Your task to perform on an android device: turn off data saver in the chrome app Image 0: 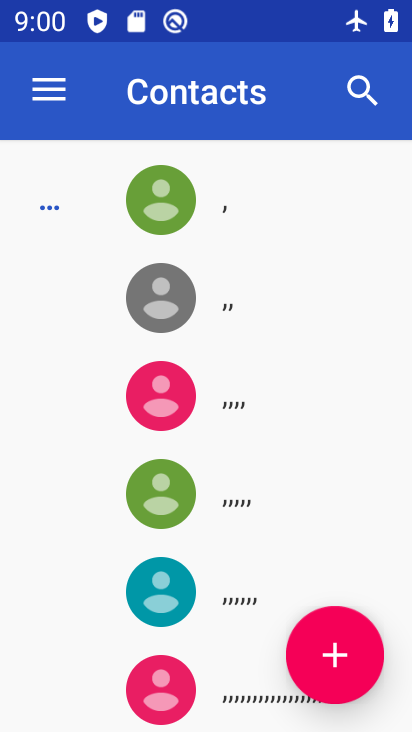
Step 0: press home button
Your task to perform on an android device: turn off data saver in the chrome app Image 1: 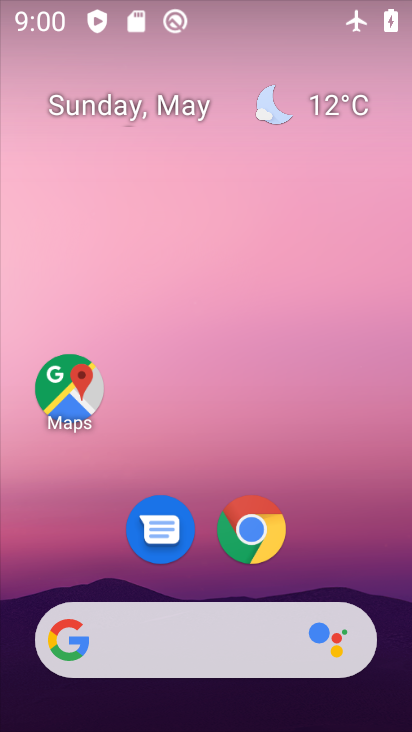
Step 1: click (250, 518)
Your task to perform on an android device: turn off data saver in the chrome app Image 2: 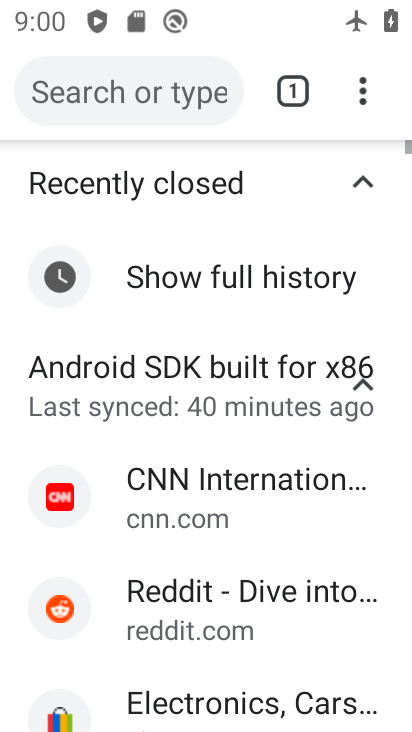
Step 2: click (347, 85)
Your task to perform on an android device: turn off data saver in the chrome app Image 3: 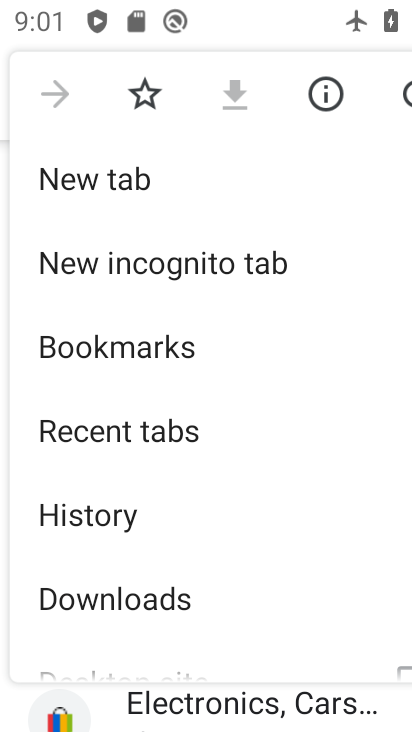
Step 3: drag from (217, 541) to (196, 116)
Your task to perform on an android device: turn off data saver in the chrome app Image 4: 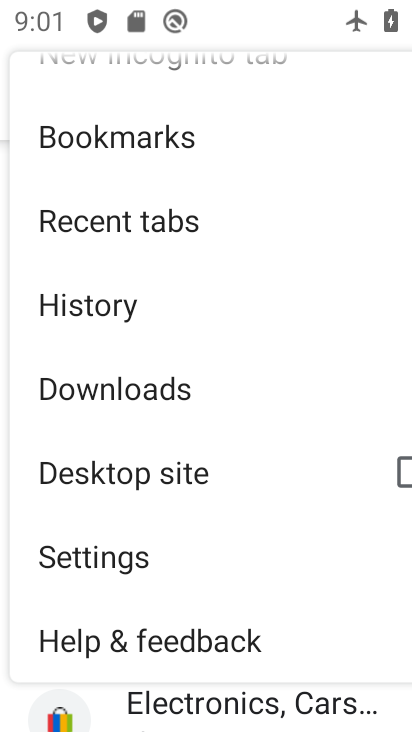
Step 4: click (161, 552)
Your task to perform on an android device: turn off data saver in the chrome app Image 5: 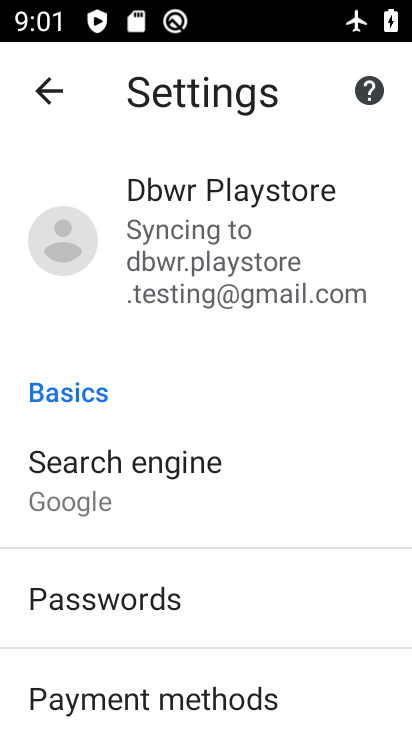
Step 5: drag from (197, 597) to (166, 140)
Your task to perform on an android device: turn off data saver in the chrome app Image 6: 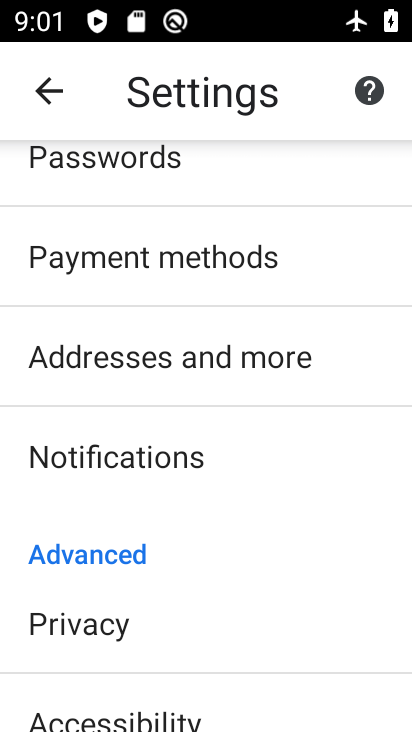
Step 6: drag from (153, 607) to (136, 347)
Your task to perform on an android device: turn off data saver in the chrome app Image 7: 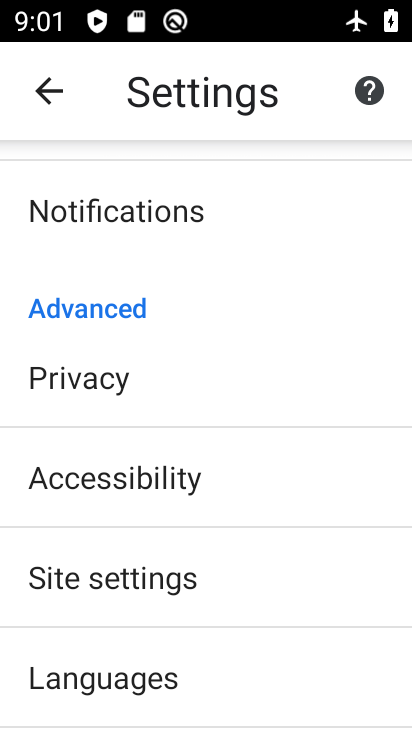
Step 7: drag from (172, 632) to (159, 283)
Your task to perform on an android device: turn off data saver in the chrome app Image 8: 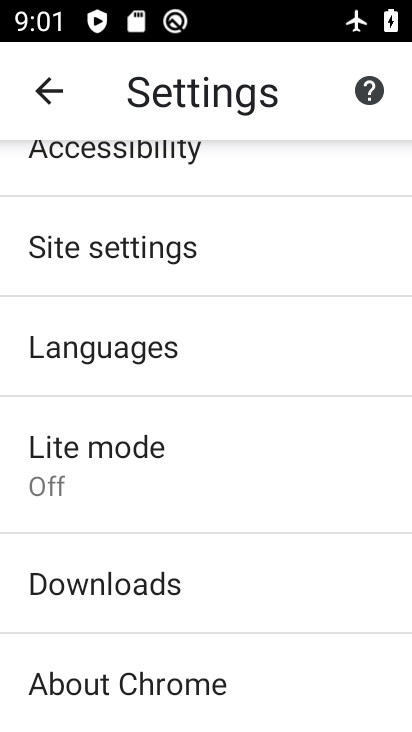
Step 8: click (196, 452)
Your task to perform on an android device: turn off data saver in the chrome app Image 9: 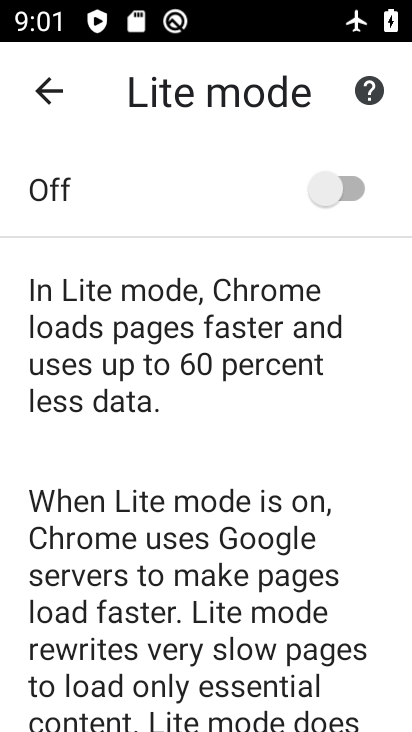
Step 9: task complete